Your task to perform on an android device: Open Google Maps and go to "Timeline" Image 0: 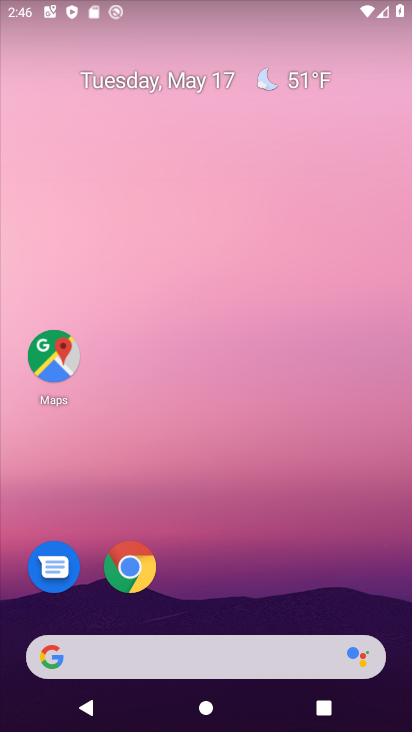
Step 0: click (145, 565)
Your task to perform on an android device: Open Google Maps and go to "Timeline" Image 1: 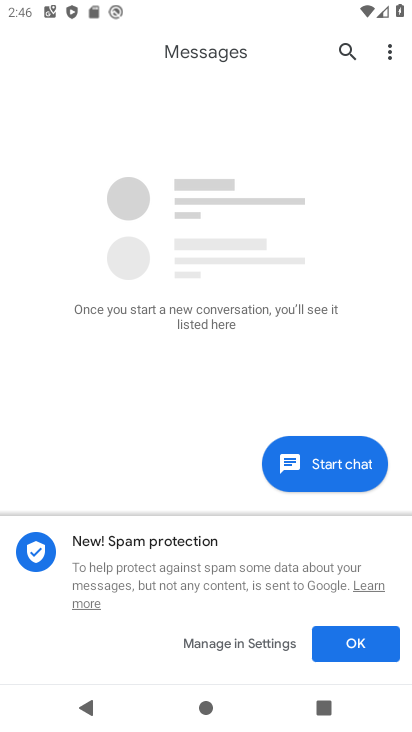
Step 1: press home button
Your task to perform on an android device: Open Google Maps and go to "Timeline" Image 2: 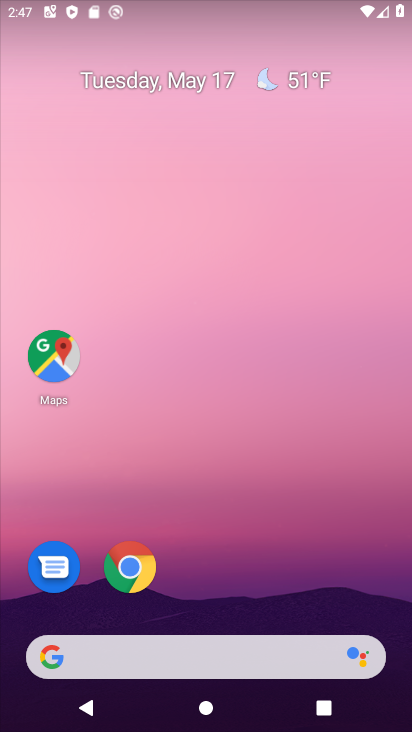
Step 2: click (44, 346)
Your task to perform on an android device: Open Google Maps and go to "Timeline" Image 3: 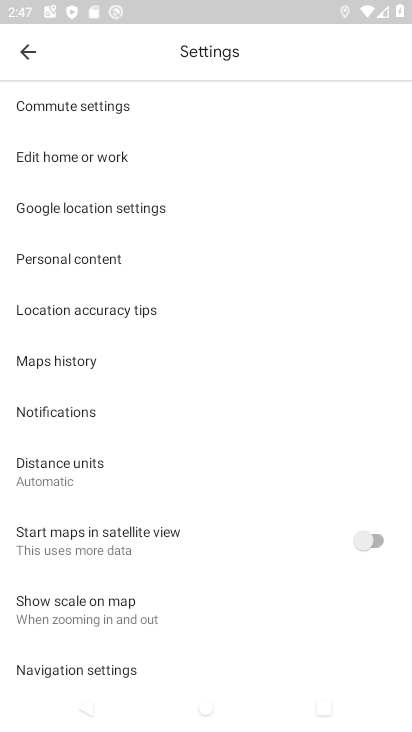
Step 3: click (18, 48)
Your task to perform on an android device: Open Google Maps and go to "Timeline" Image 4: 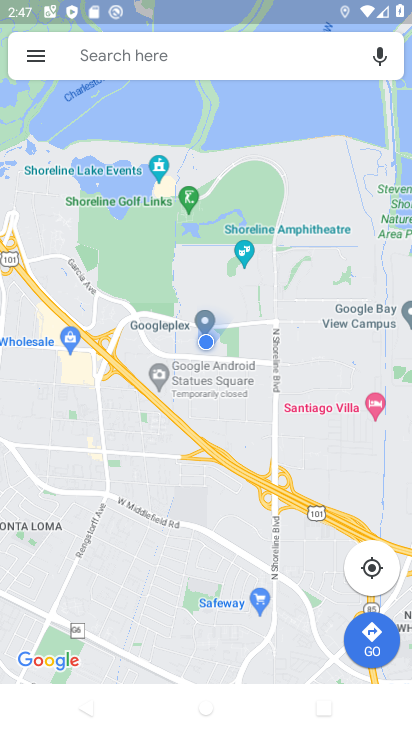
Step 4: click (18, 48)
Your task to perform on an android device: Open Google Maps and go to "Timeline" Image 5: 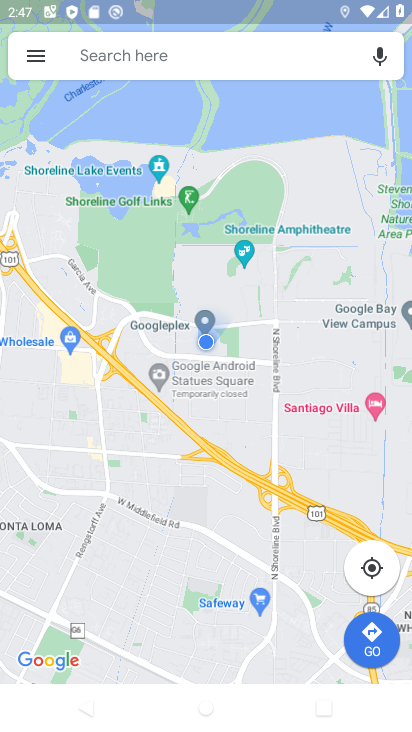
Step 5: click (42, 57)
Your task to perform on an android device: Open Google Maps and go to "Timeline" Image 6: 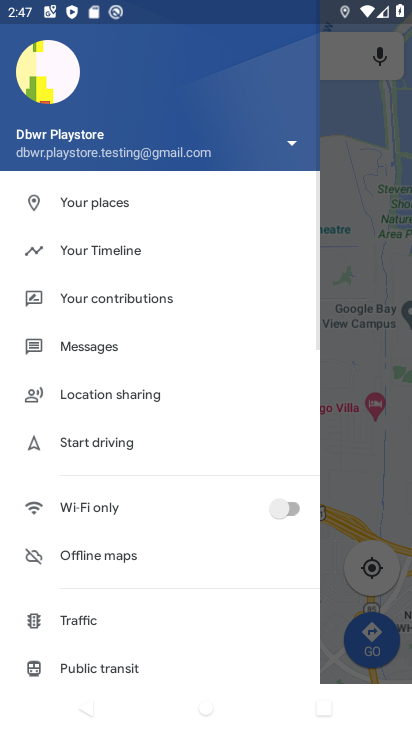
Step 6: click (110, 257)
Your task to perform on an android device: Open Google Maps and go to "Timeline" Image 7: 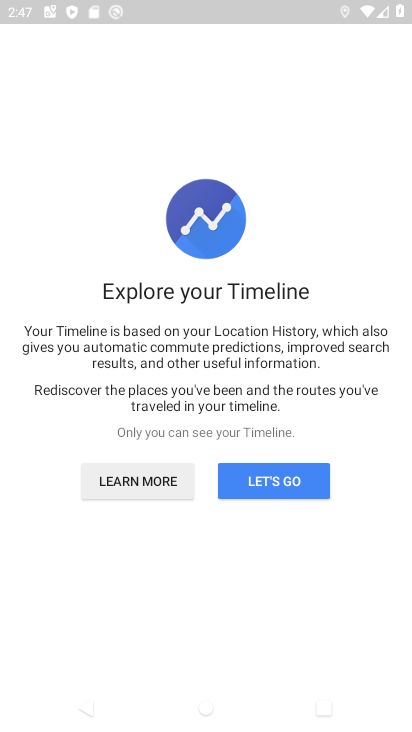
Step 7: click (243, 478)
Your task to perform on an android device: Open Google Maps and go to "Timeline" Image 8: 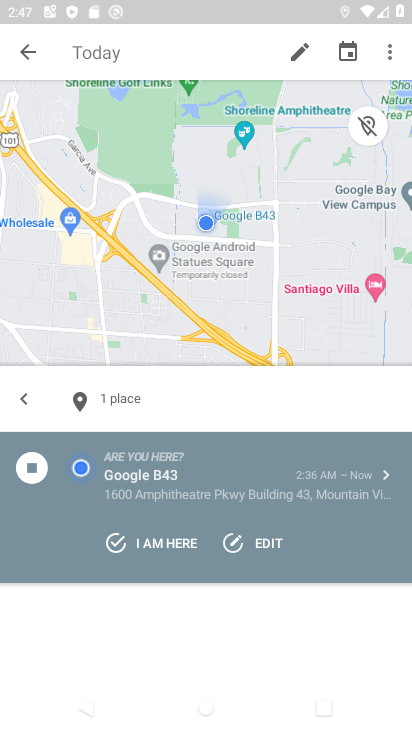
Step 8: task complete